Your task to perform on an android device: visit the assistant section in the google photos Image 0: 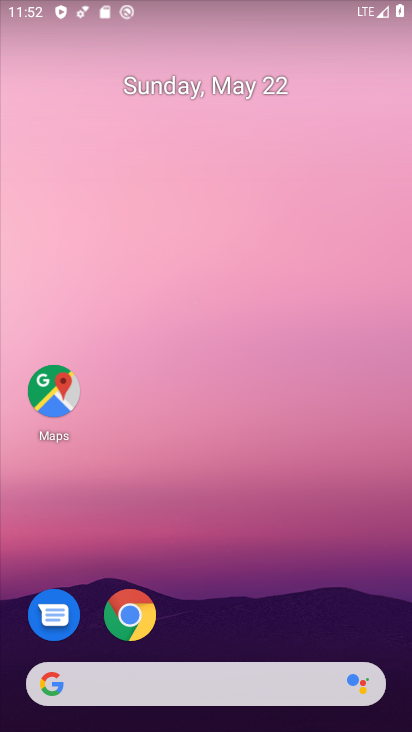
Step 0: drag from (254, 623) to (253, 131)
Your task to perform on an android device: visit the assistant section in the google photos Image 1: 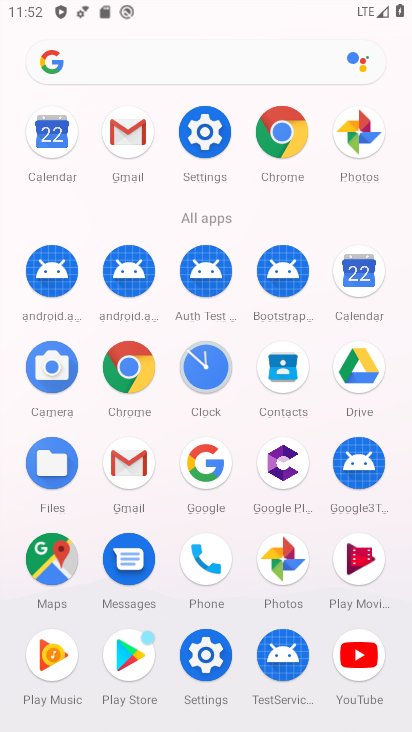
Step 1: click (280, 564)
Your task to perform on an android device: visit the assistant section in the google photos Image 2: 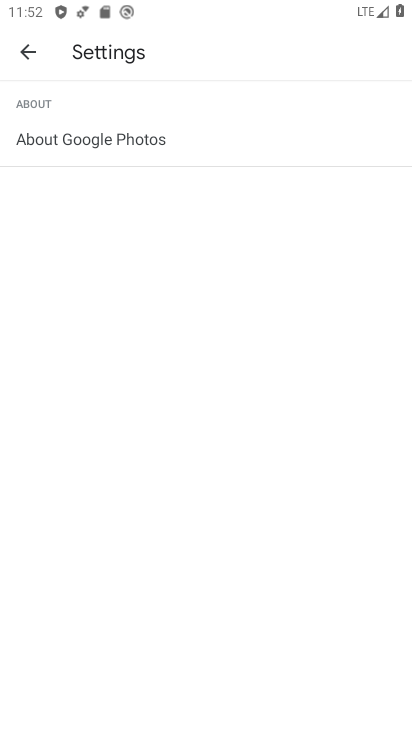
Step 2: click (30, 46)
Your task to perform on an android device: visit the assistant section in the google photos Image 3: 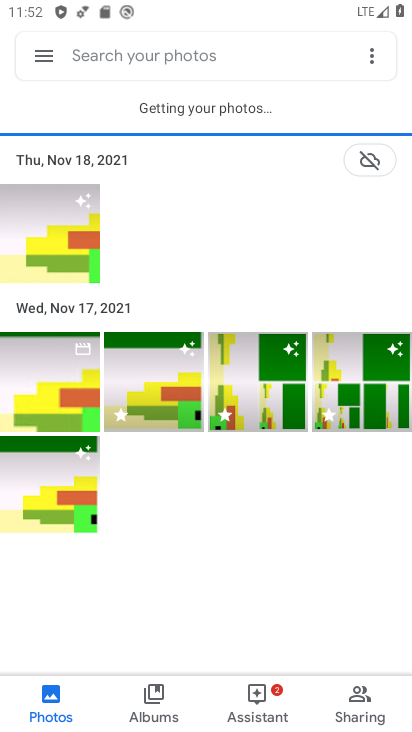
Step 3: click (254, 702)
Your task to perform on an android device: visit the assistant section in the google photos Image 4: 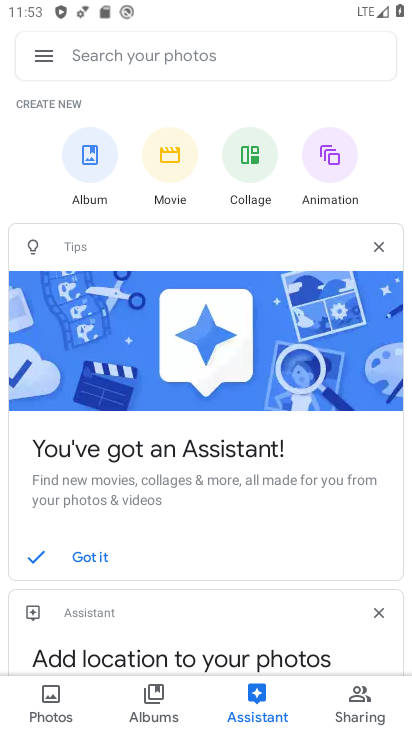
Step 4: task complete